Your task to perform on an android device: Add "logitech g903" to the cart on costco Image 0: 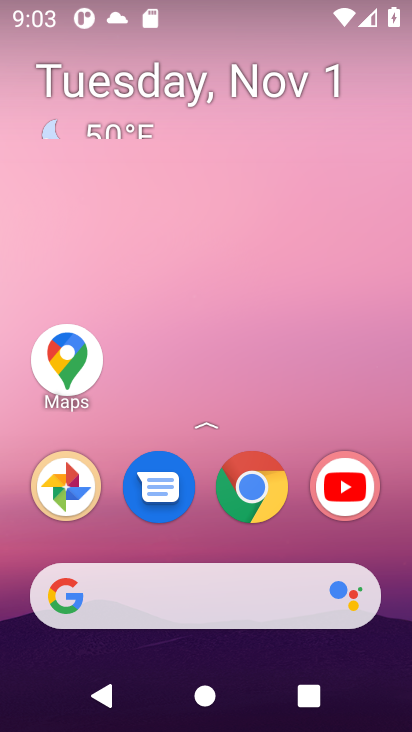
Step 0: press home button
Your task to perform on an android device: Add "logitech g903" to the cart on costco Image 1: 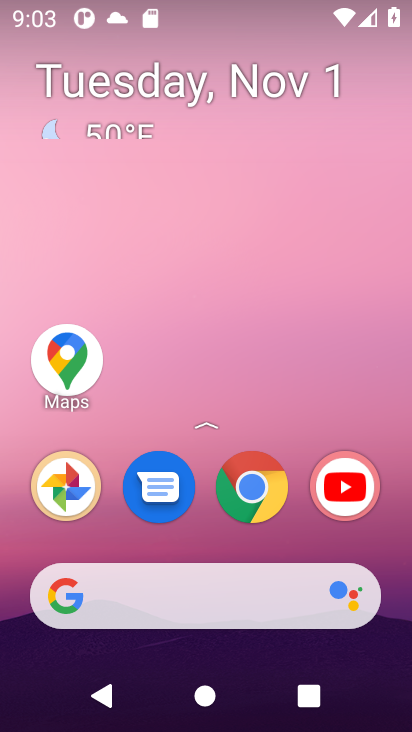
Step 1: drag from (197, 450) to (209, 53)
Your task to perform on an android device: Add "logitech g903" to the cart on costco Image 2: 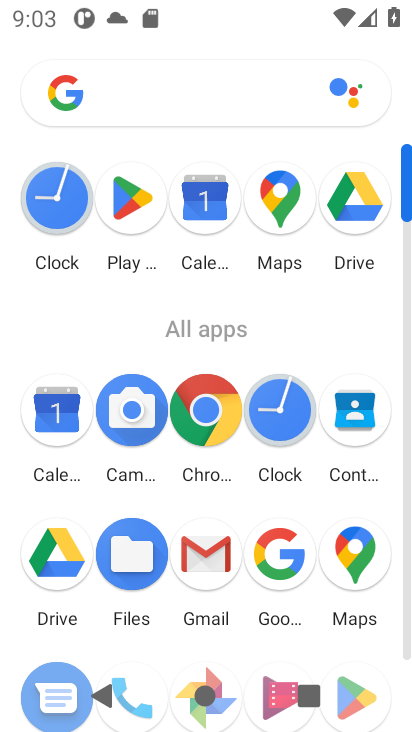
Step 2: click (208, 404)
Your task to perform on an android device: Add "logitech g903" to the cart on costco Image 3: 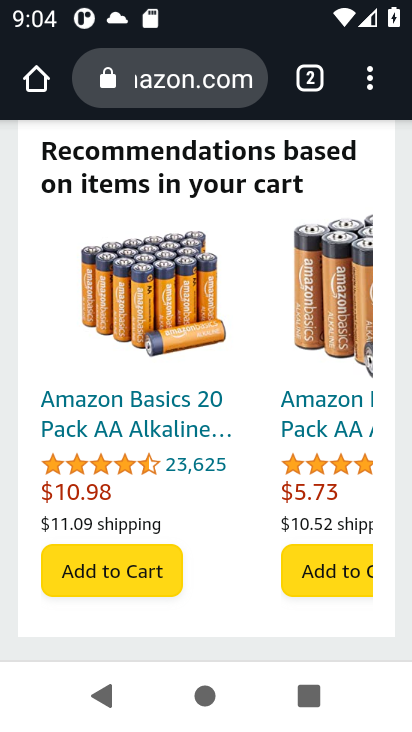
Step 3: click (172, 69)
Your task to perform on an android device: Add "logitech g903" to the cart on costco Image 4: 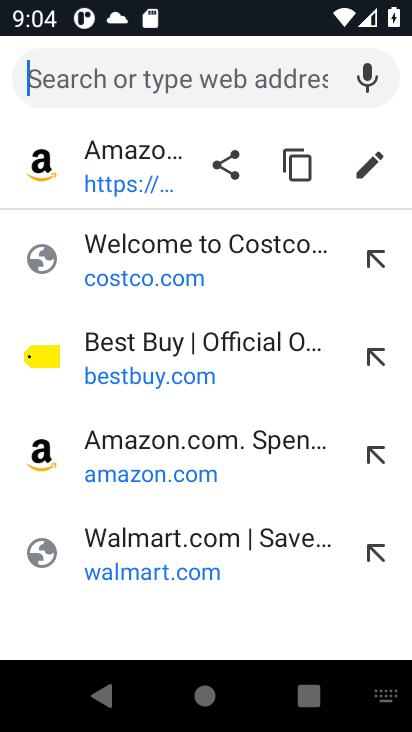
Step 4: click (147, 260)
Your task to perform on an android device: Add "logitech g903" to the cart on costco Image 5: 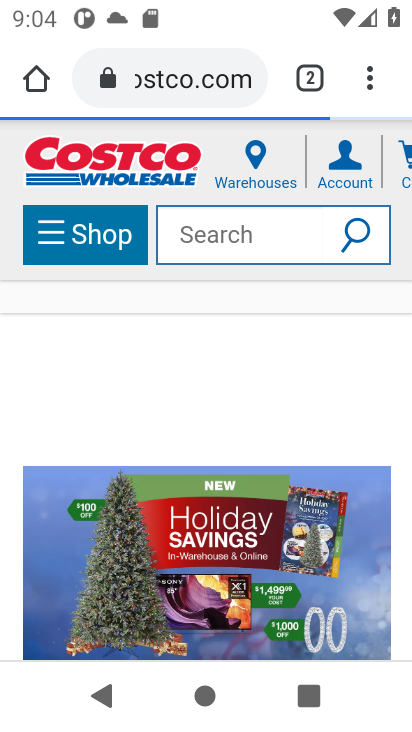
Step 5: click (209, 238)
Your task to perform on an android device: Add "logitech g903" to the cart on costco Image 6: 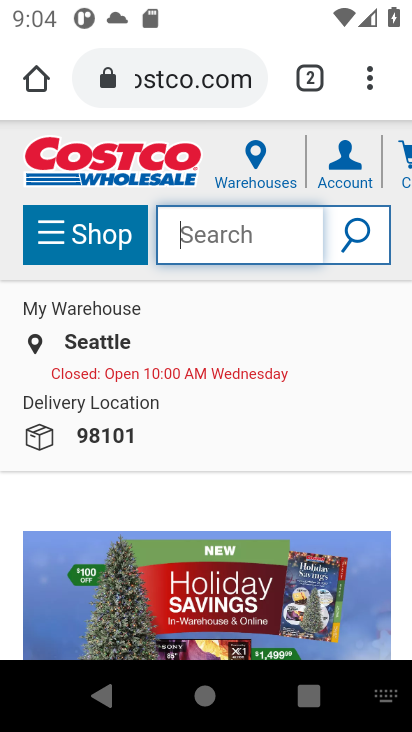
Step 6: type "logitech g903"
Your task to perform on an android device: Add "logitech g903" to the cart on costco Image 7: 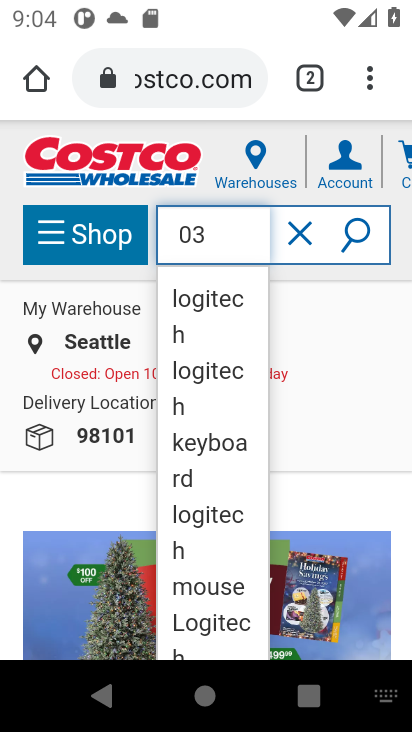
Step 7: drag from (300, 544) to (309, 231)
Your task to perform on an android device: Add "logitech g903" to the cart on costco Image 8: 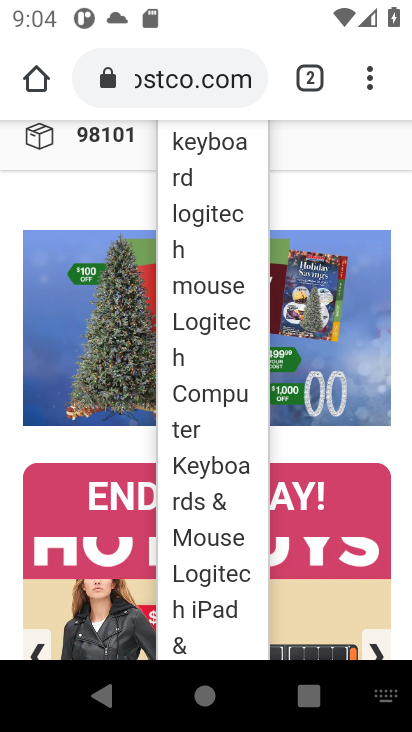
Step 8: drag from (300, 588) to (301, 724)
Your task to perform on an android device: Add "logitech g903" to the cart on costco Image 9: 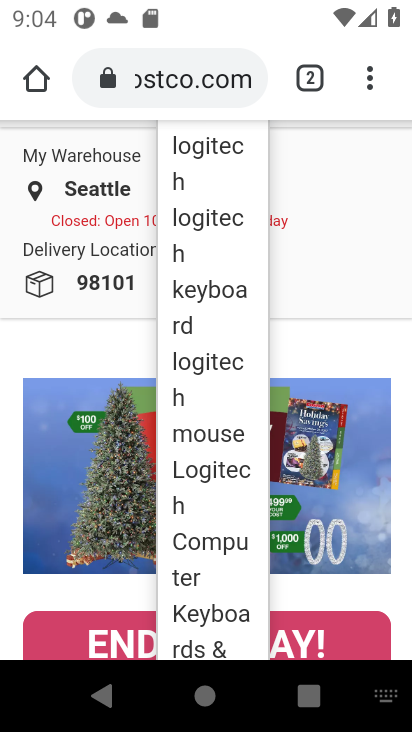
Step 9: drag from (294, 180) to (314, 370)
Your task to perform on an android device: Add "logitech g903" to the cart on costco Image 10: 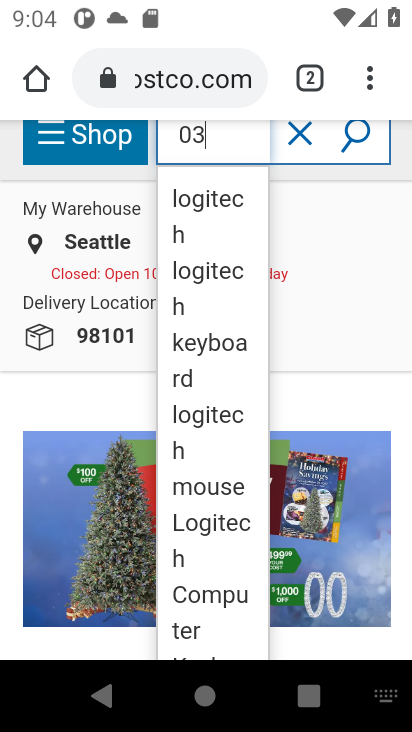
Step 10: click (216, 212)
Your task to perform on an android device: Add "logitech g903" to the cart on costco Image 11: 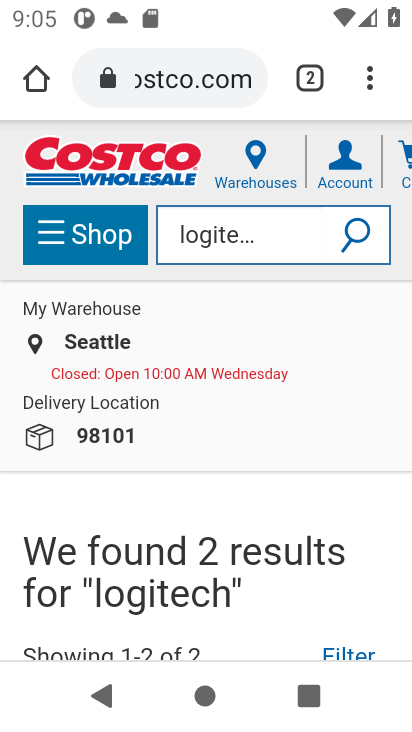
Step 11: task complete